Your task to perform on an android device: turn notification dots off Image 0: 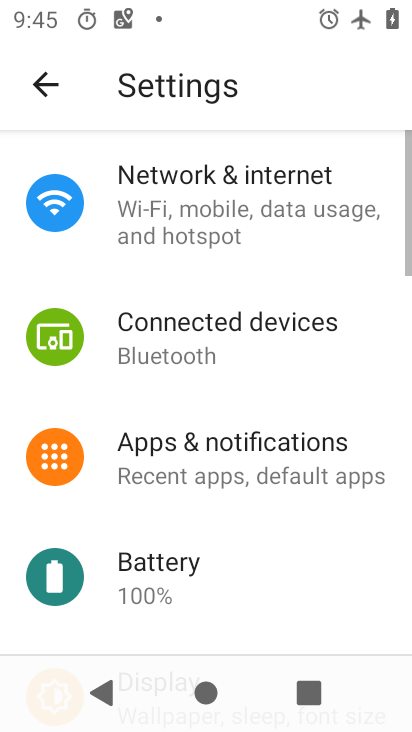
Step 0: press back button
Your task to perform on an android device: turn notification dots off Image 1: 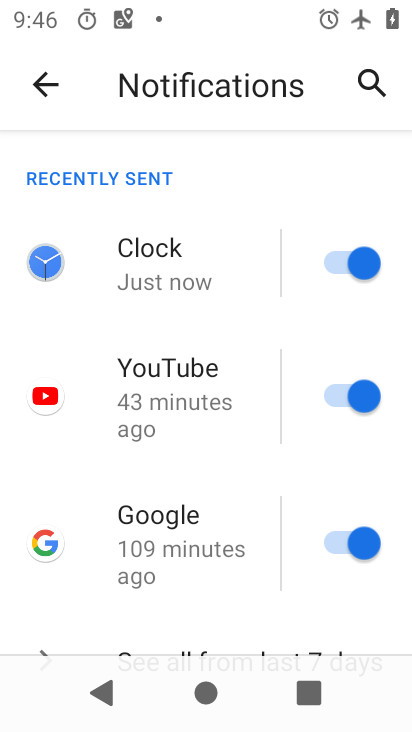
Step 1: drag from (169, 514) to (213, 93)
Your task to perform on an android device: turn notification dots off Image 2: 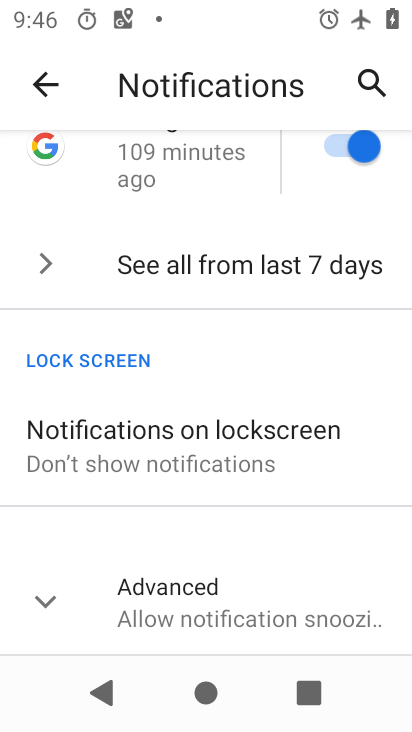
Step 2: click (194, 585)
Your task to perform on an android device: turn notification dots off Image 3: 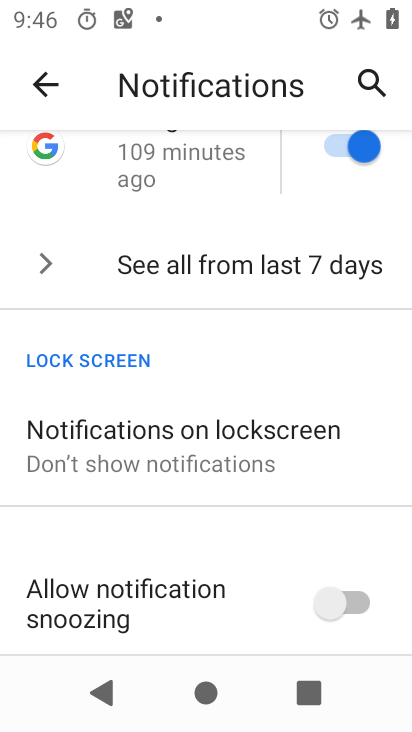
Step 3: task complete